Your task to perform on an android device: Do I have any events tomorrow? Image 0: 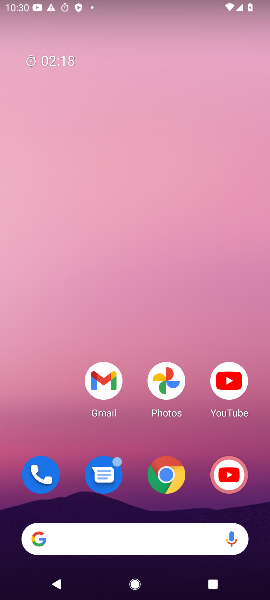
Step 0: drag from (138, 500) to (166, 28)
Your task to perform on an android device: Do I have any events tomorrow? Image 1: 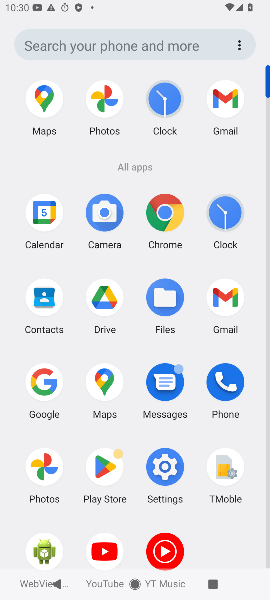
Step 1: click (41, 210)
Your task to perform on an android device: Do I have any events tomorrow? Image 2: 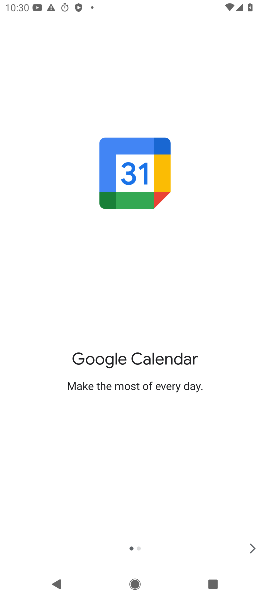
Step 2: click (252, 548)
Your task to perform on an android device: Do I have any events tomorrow? Image 3: 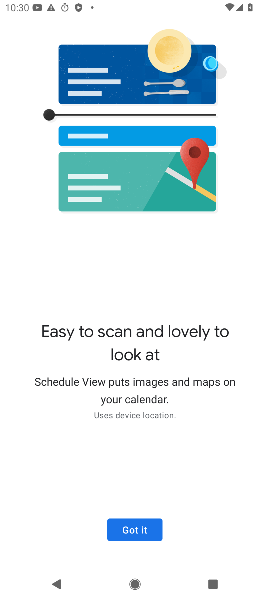
Step 3: click (148, 534)
Your task to perform on an android device: Do I have any events tomorrow? Image 4: 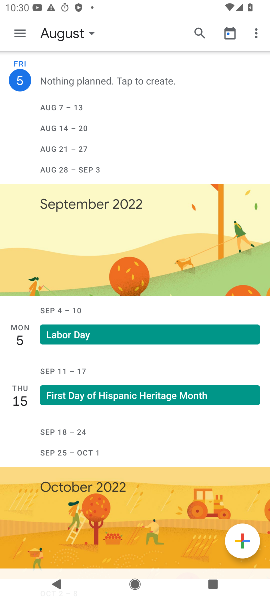
Step 4: click (17, 29)
Your task to perform on an android device: Do I have any events tomorrow? Image 5: 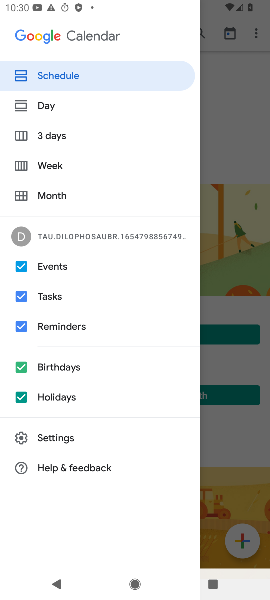
Step 5: click (46, 399)
Your task to perform on an android device: Do I have any events tomorrow? Image 6: 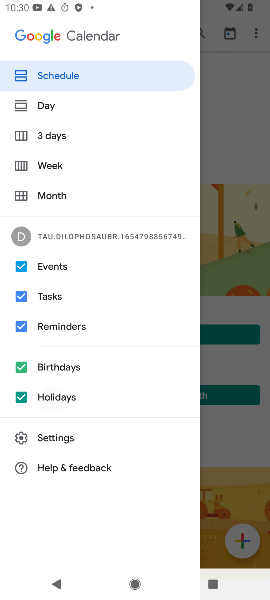
Step 6: click (46, 376)
Your task to perform on an android device: Do I have any events tomorrow? Image 7: 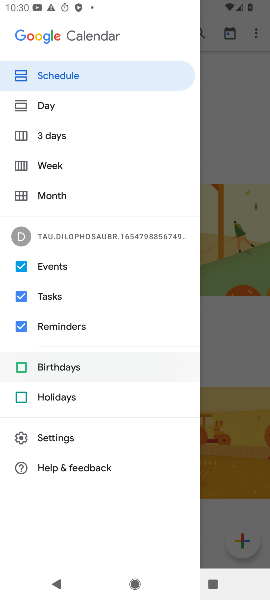
Step 7: click (38, 315)
Your task to perform on an android device: Do I have any events tomorrow? Image 8: 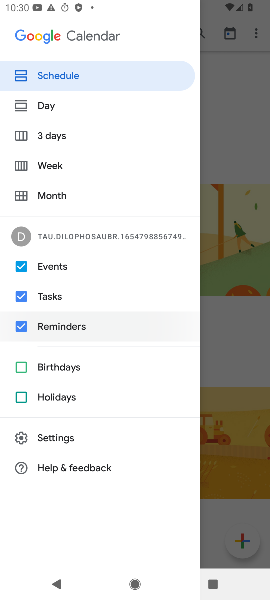
Step 8: click (41, 300)
Your task to perform on an android device: Do I have any events tomorrow? Image 9: 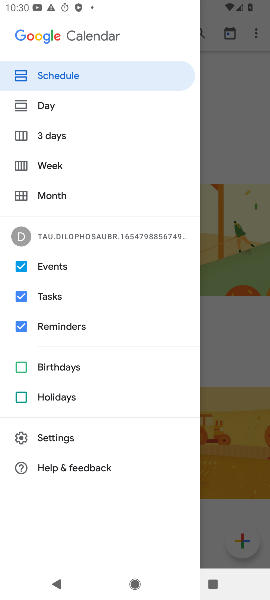
Step 9: click (41, 300)
Your task to perform on an android device: Do I have any events tomorrow? Image 10: 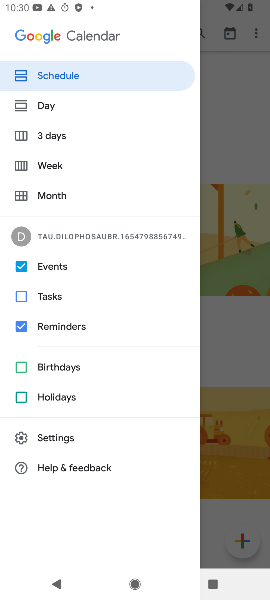
Step 10: click (42, 330)
Your task to perform on an android device: Do I have any events tomorrow? Image 11: 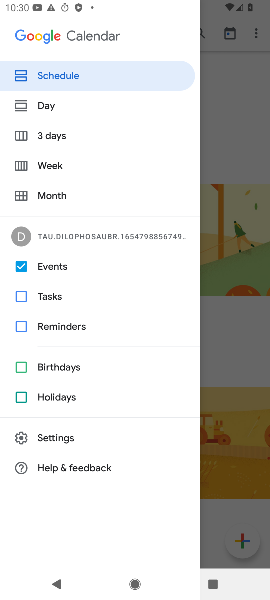
Step 11: click (53, 139)
Your task to perform on an android device: Do I have any events tomorrow? Image 12: 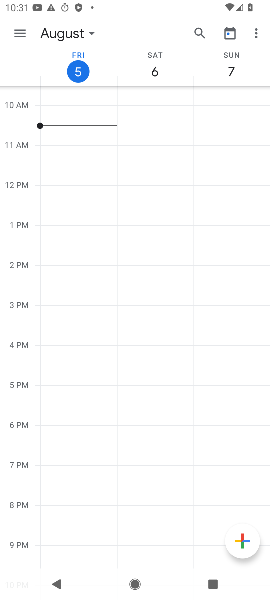
Step 12: click (163, 67)
Your task to perform on an android device: Do I have any events tomorrow? Image 13: 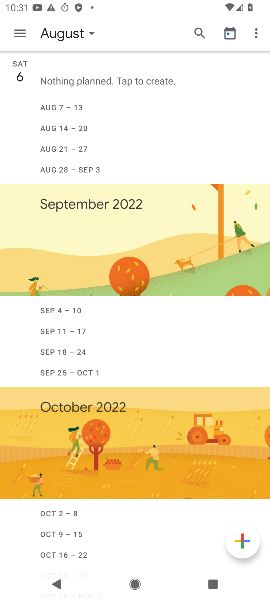
Step 13: task complete